Your task to perform on an android device: read, delete, or share a saved page in the chrome app Image 0: 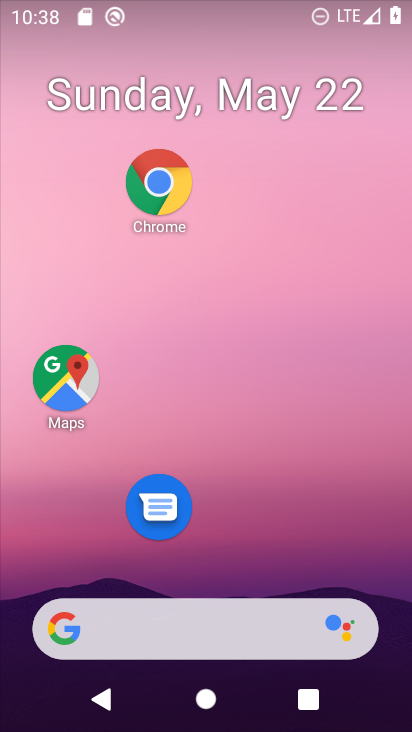
Step 0: click (183, 192)
Your task to perform on an android device: read, delete, or share a saved page in the chrome app Image 1: 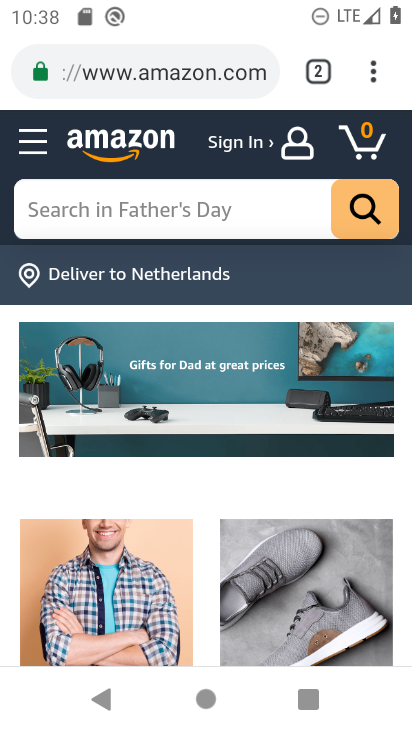
Step 1: click (366, 77)
Your task to perform on an android device: read, delete, or share a saved page in the chrome app Image 2: 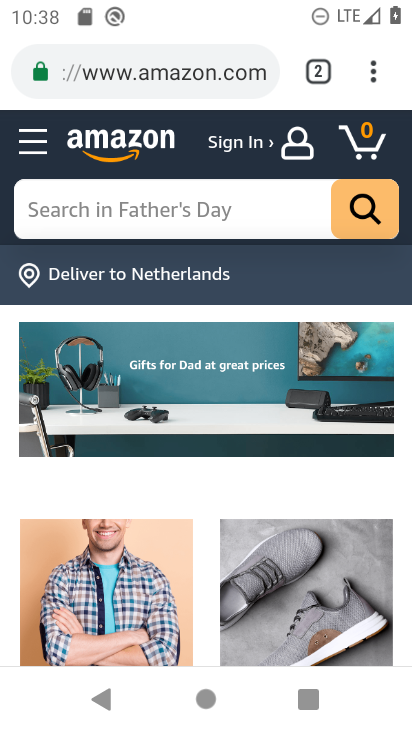
Step 2: click (369, 76)
Your task to perform on an android device: read, delete, or share a saved page in the chrome app Image 3: 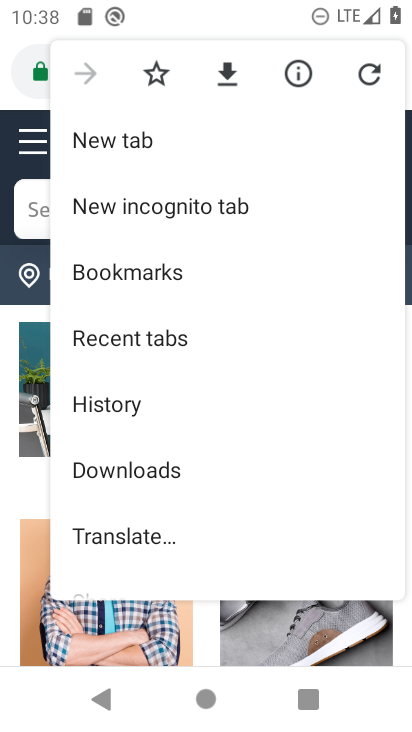
Step 3: drag from (218, 548) to (133, 167)
Your task to perform on an android device: read, delete, or share a saved page in the chrome app Image 4: 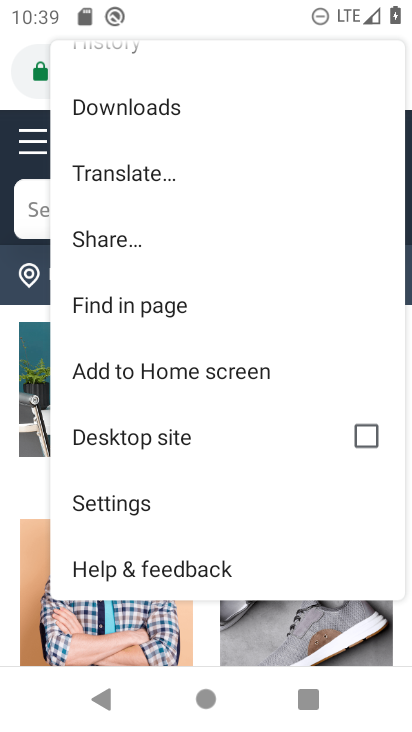
Step 4: click (161, 108)
Your task to perform on an android device: read, delete, or share a saved page in the chrome app Image 5: 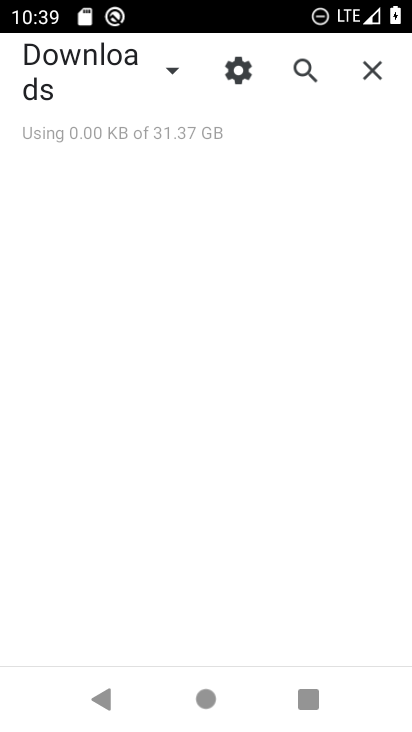
Step 5: task complete